Your task to perform on an android device: Play the last video I watched on Youtube Image 0: 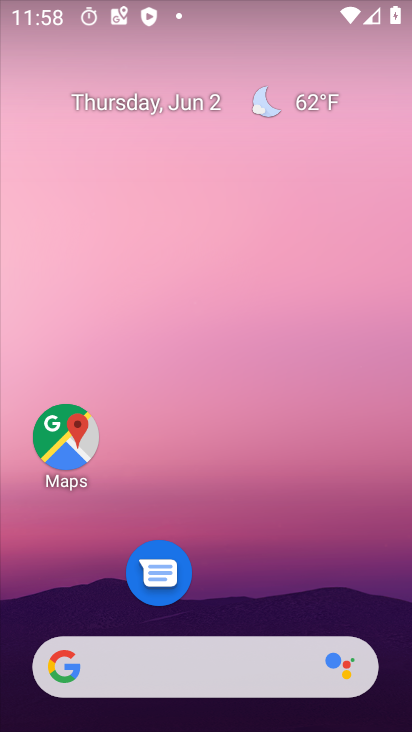
Step 0: drag from (300, 671) to (320, 94)
Your task to perform on an android device: Play the last video I watched on Youtube Image 1: 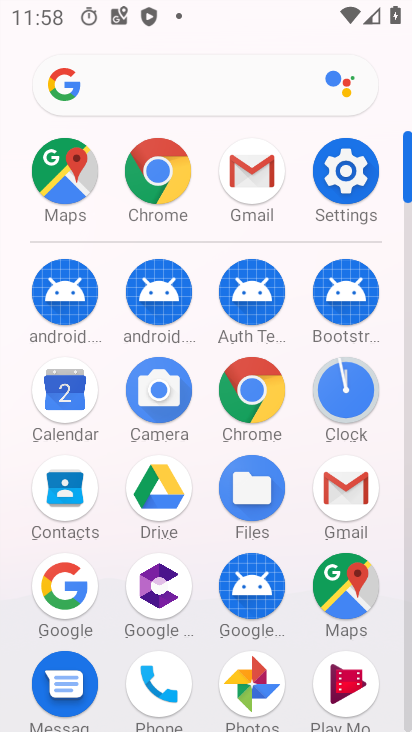
Step 1: drag from (307, 529) to (327, 148)
Your task to perform on an android device: Play the last video I watched on Youtube Image 2: 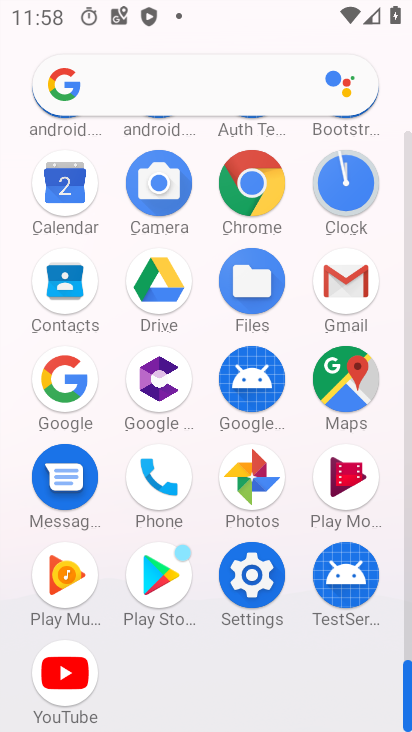
Step 2: click (84, 687)
Your task to perform on an android device: Play the last video I watched on Youtube Image 3: 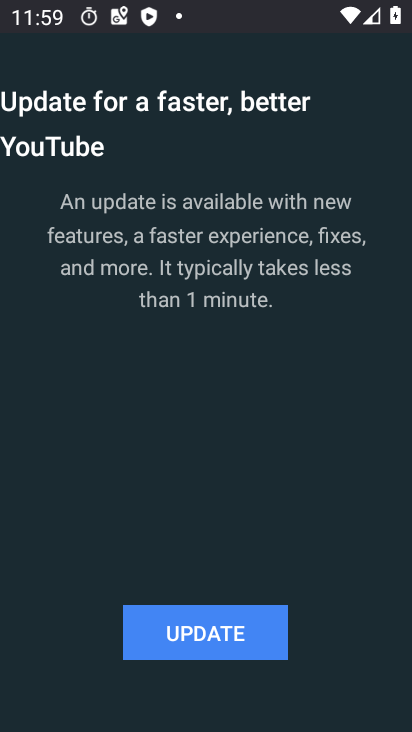
Step 3: press home button
Your task to perform on an android device: Play the last video I watched on Youtube Image 4: 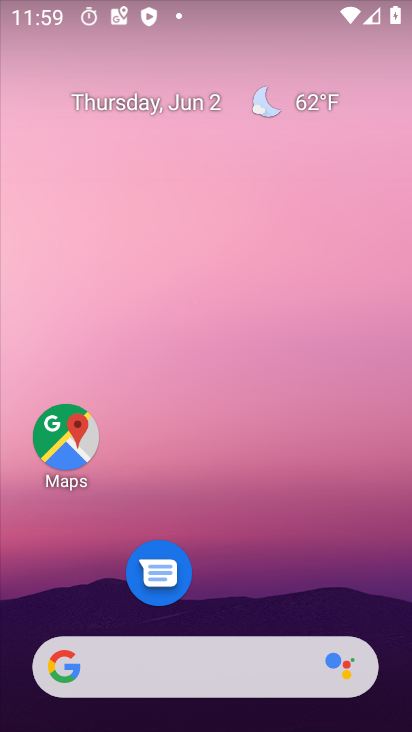
Step 4: drag from (170, 641) to (293, 80)
Your task to perform on an android device: Play the last video I watched on Youtube Image 5: 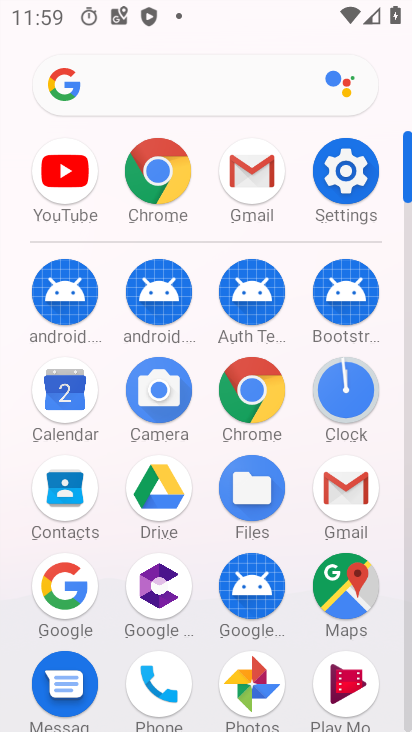
Step 5: drag from (298, 657) to (294, 190)
Your task to perform on an android device: Play the last video I watched on Youtube Image 6: 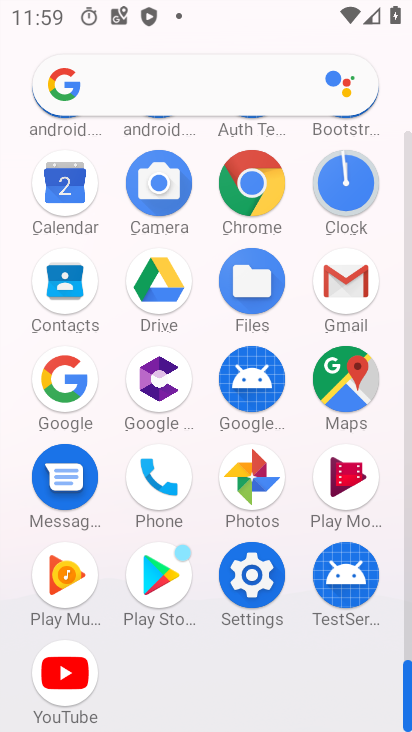
Step 6: click (69, 677)
Your task to perform on an android device: Play the last video I watched on Youtube Image 7: 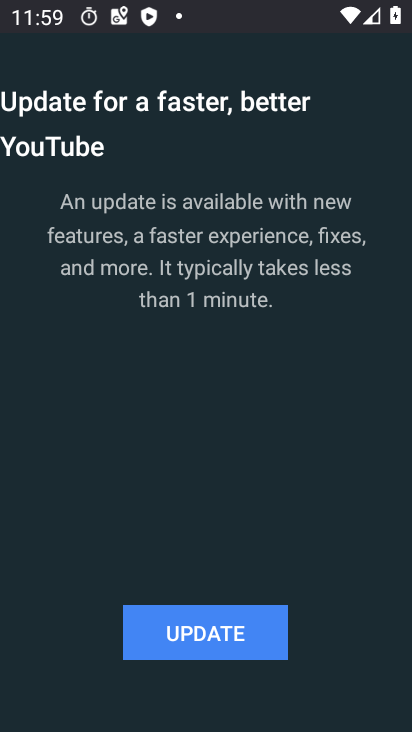
Step 7: click (236, 639)
Your task to perform on an android device: Play the last video I watched on Youtube Image 8: 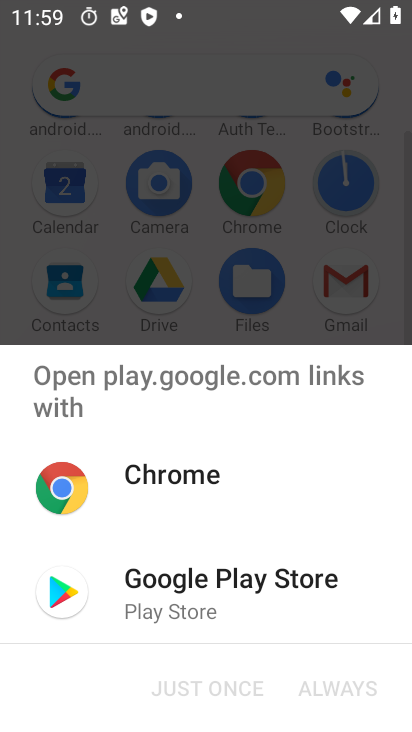
Step 8: click (282, 584)
Your task to perform on an android device: Play the last video I watched on Youtube Image 9: 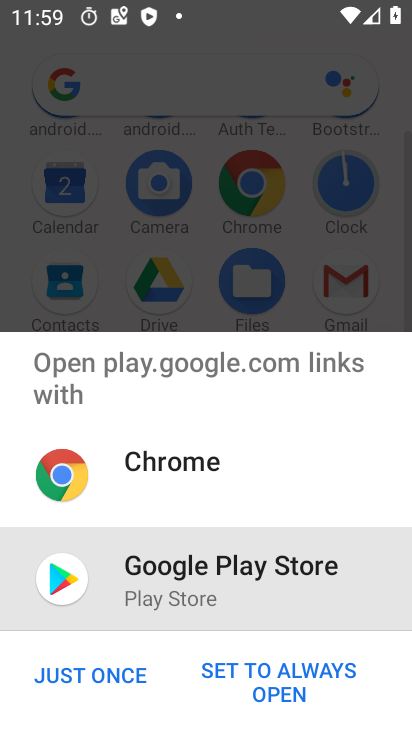
Step 9: click (118, 677)
Your task to perform on an android device: Play the last video I watched on Youtube Image 10: 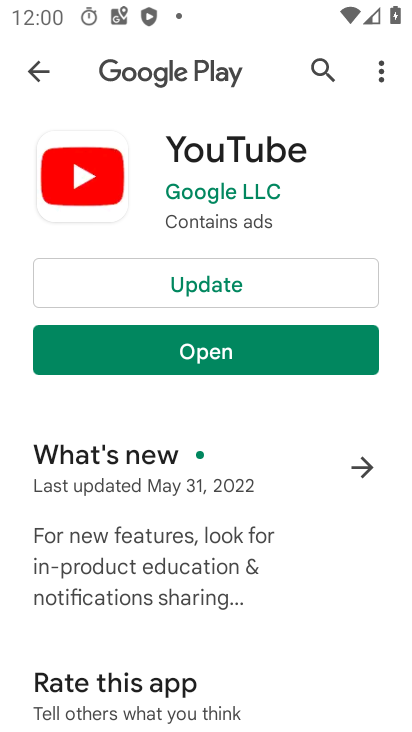
Step 10: click (347, 282)
Your task to perform on an android device: Play the last video I watched on Youtube Image 11: 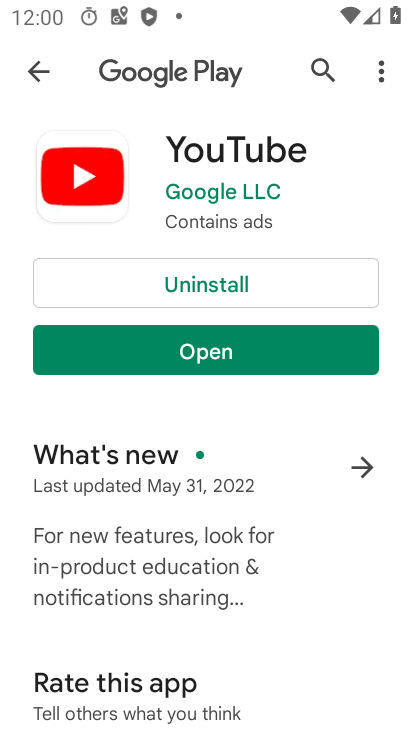
Step 11: click (290, 349)
Your task to perform on an android device: Play the last video I watched on Youtube Image 12: 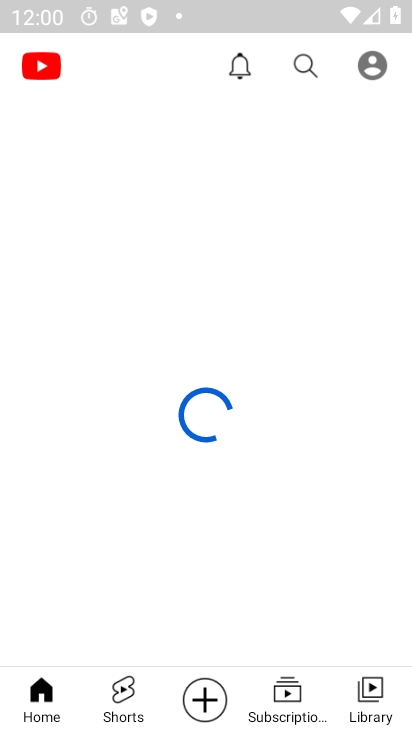
Step 12: click (370, 715)
Your task to perform on an android device: Play the last video I watched on Youtube Image 13: 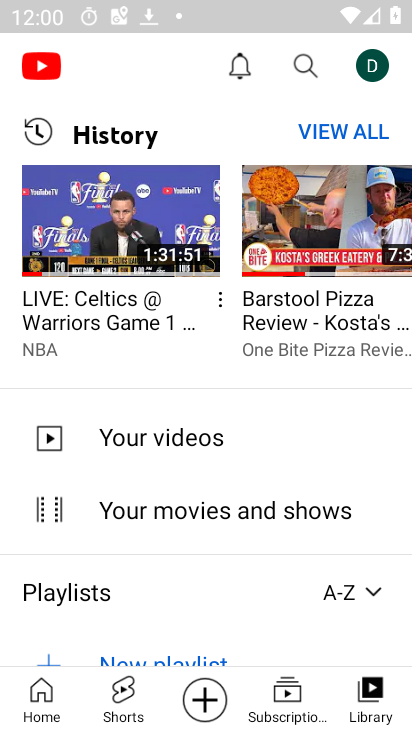
Step 13: click (175, 258)
Your task to perform on an android device: Play the last video I watched on Youtube Image 14: 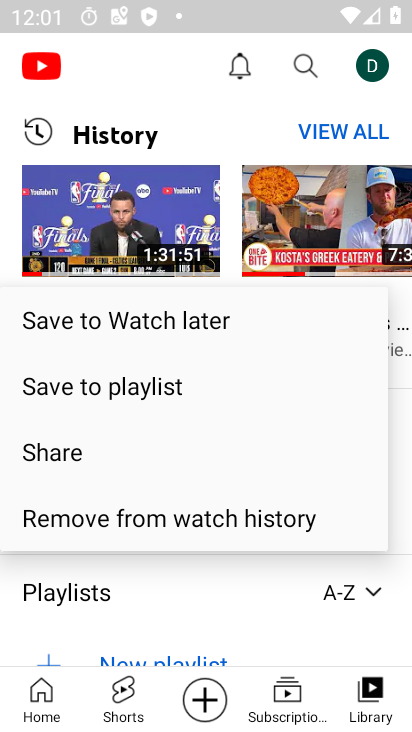
Step 14: click (103, 225)
Your task to perform on an android device: Play the last video I watched on Youtube Image 15: 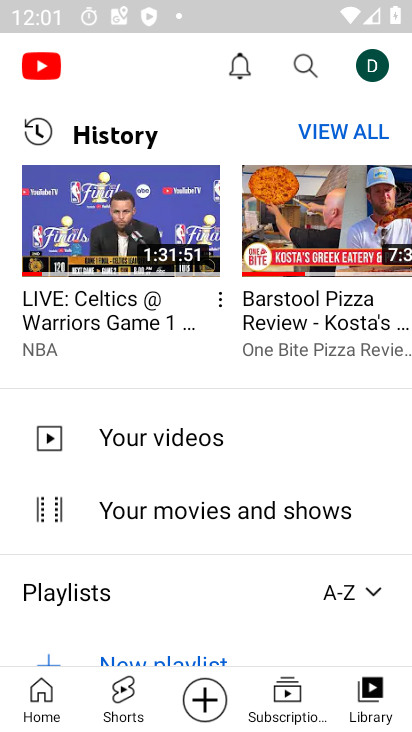
Step 15: click (103, 225)
Your task to perform on an android device: Play the last video I watched on Youtube Image 16: 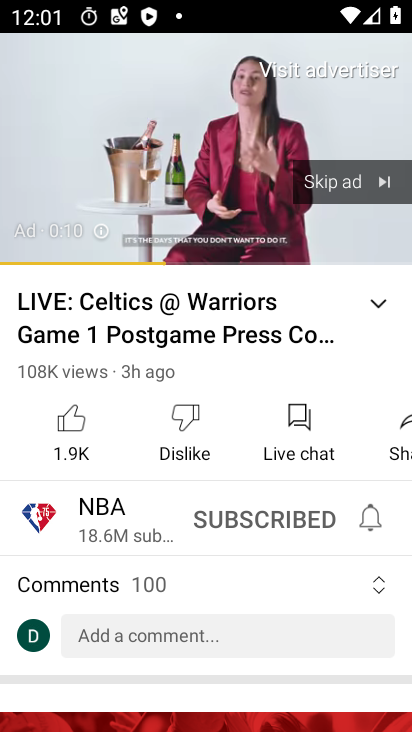
Step 16: click (366, 171)
Your task to perform on an android device: Play the last video I watched on Youtube Image 17: 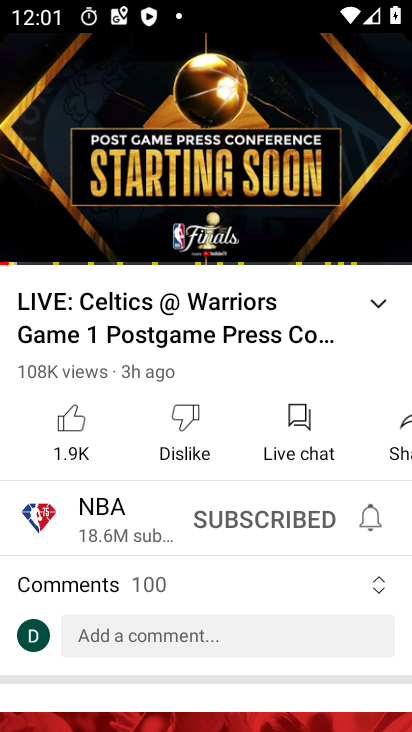
Step 17: task complete